Your task to perform on an android device: Open privacy settings Image 0: 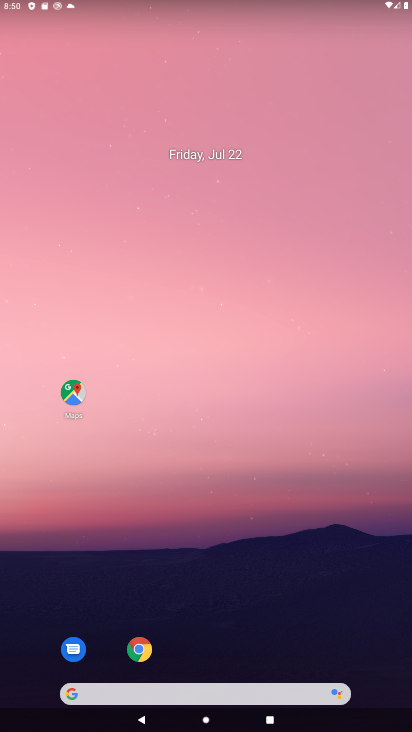
Step 0: drag from (285, 565) to (248, 55)
Your task to perform on an android device: Open privacy settings Image 1: 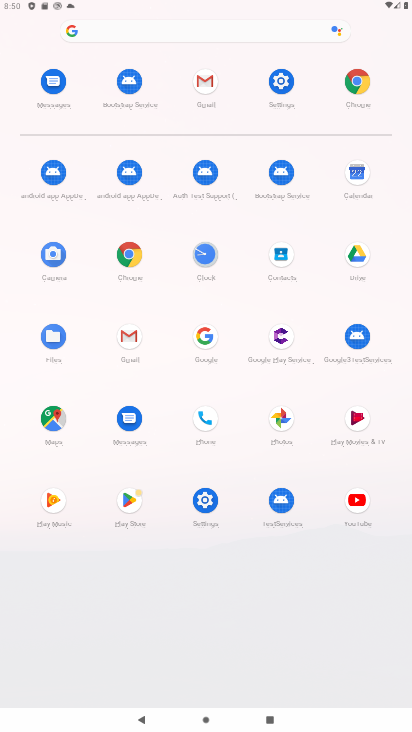
Step 1: click (203, 502)
Your task to perform on an android device: Open privacy settings Image 2: 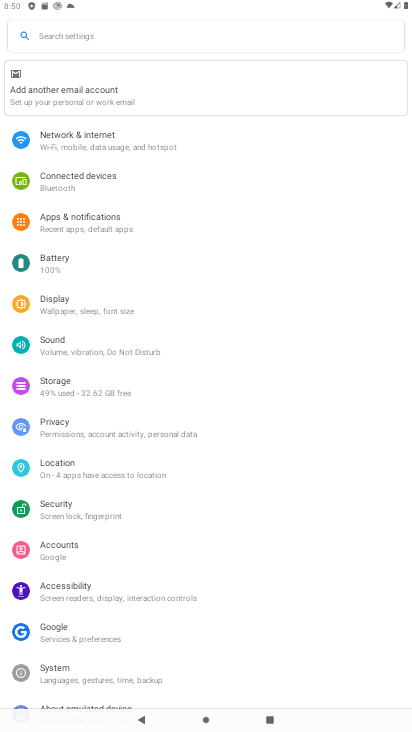
Step 2: click (91, 421)
Your task to perform on an android device: Open privacy settings Image 3: 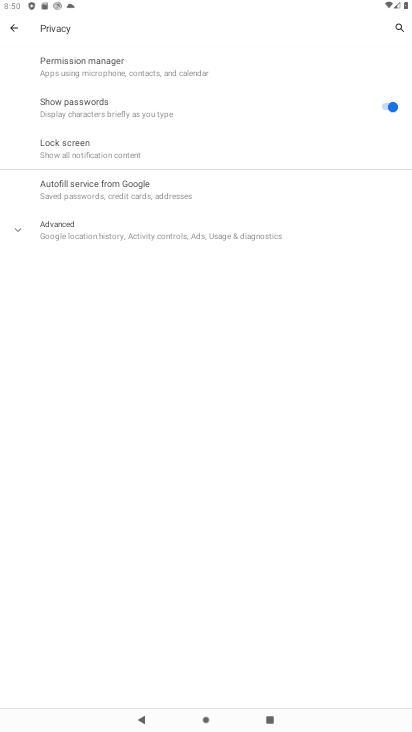
Step 3: task complete